Your task to perform on an android device: Go to notification settings Image 0: 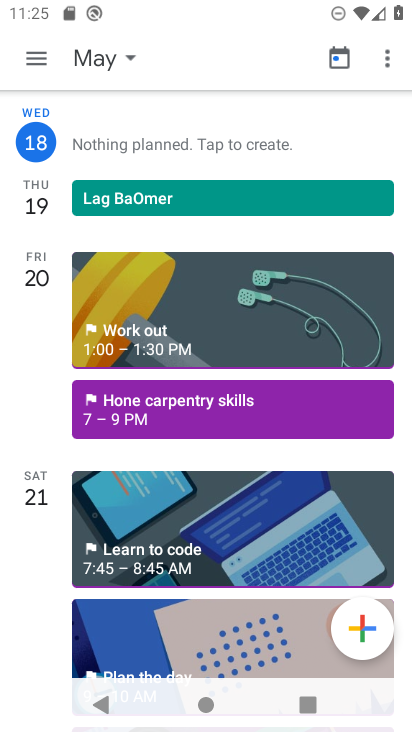
Step 0: press home button
Your task to perform on an android device: Go to notification settings Image 1: 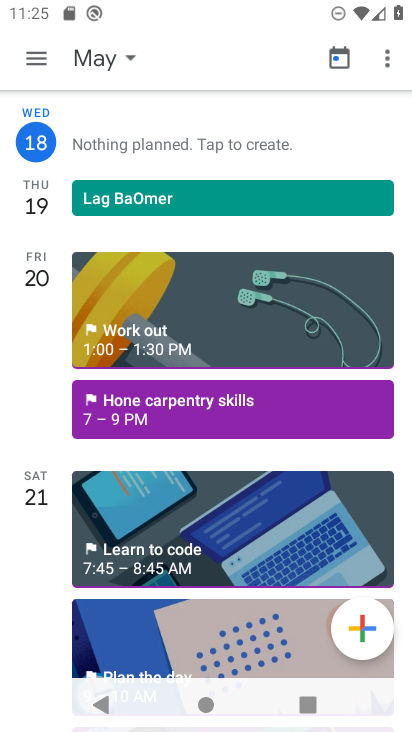
Step 1: press home button
Your task to perform on an android device: Go to notification settings Image 2: 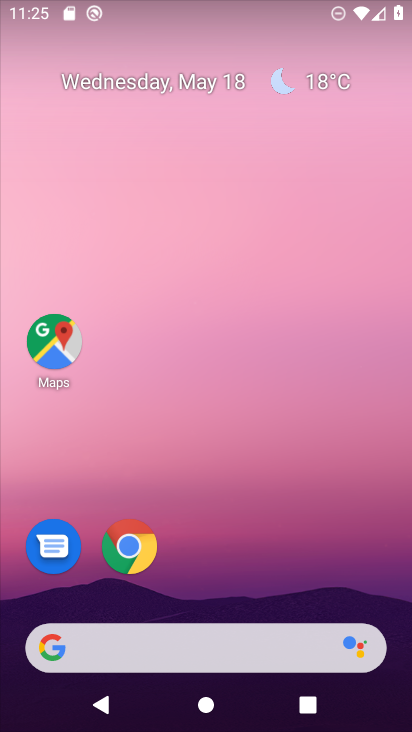
Step 2: drag from (223, 725) to (225, 192)
Your task to perform on an android device: Go to notification settings Image 3: 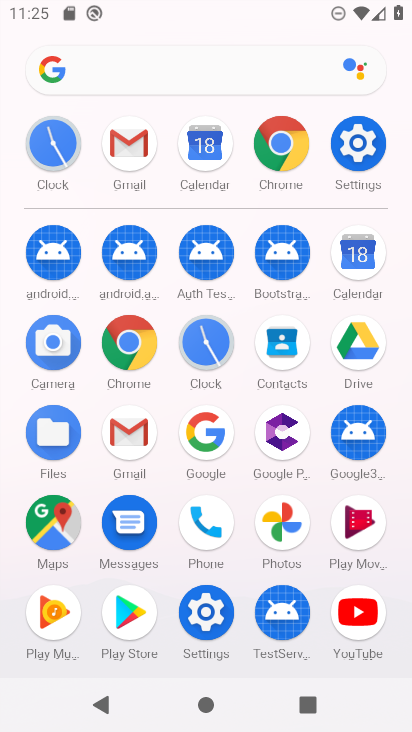
Step 3: click (353, 142)
Your task to perform on an android device: Go to notification settings Image 4: 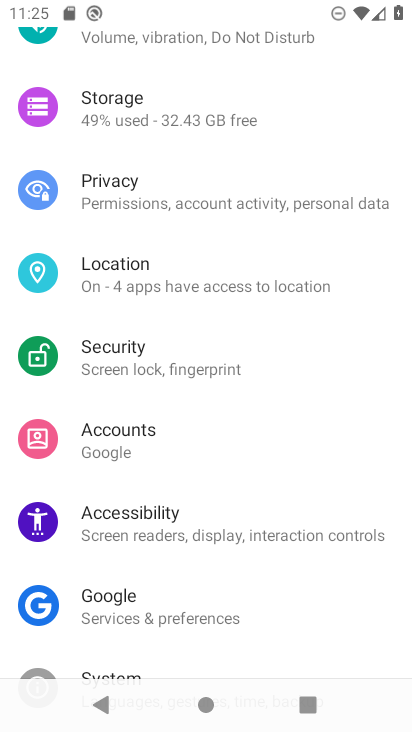
Step 4: drag from (129, 150) to (148, 463)
Your task to perform on an android device: Go to notification settings Image 5: 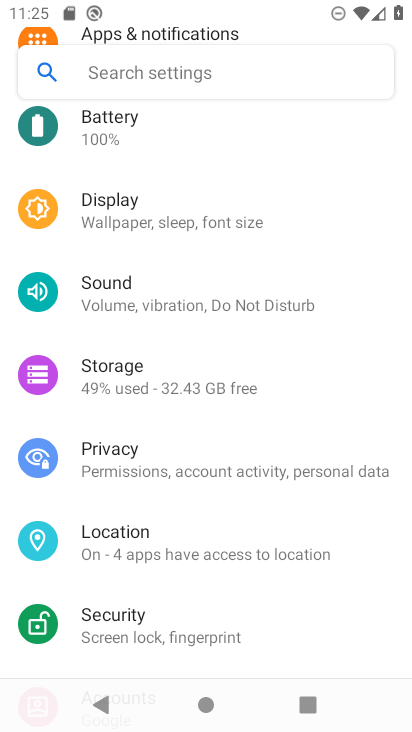
Step 5: drag from (201, 153) to (218, 478)
Your task to perform on an android device: Go to notification settings Image 6: 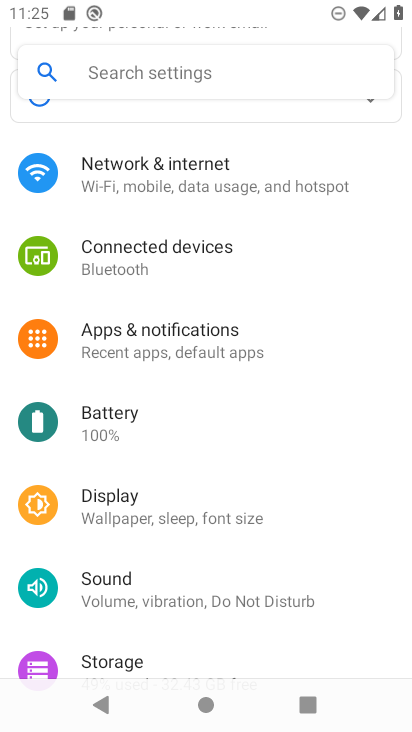
Step 6: click (145, 341)
Your task to perform on an android device: Go to notification settings Image 7: 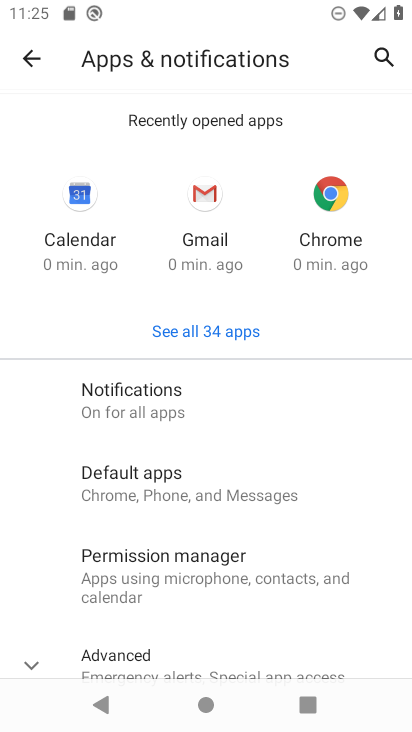
Step 7: click (135, 400)
Your task to perform on an android device: Go to notification settings Image 8: 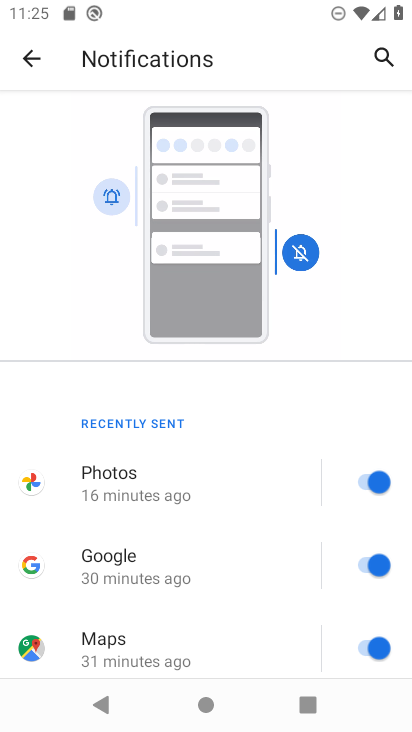
Step 8: task complete